Your task to perform on an android device: delete location history Image 0: 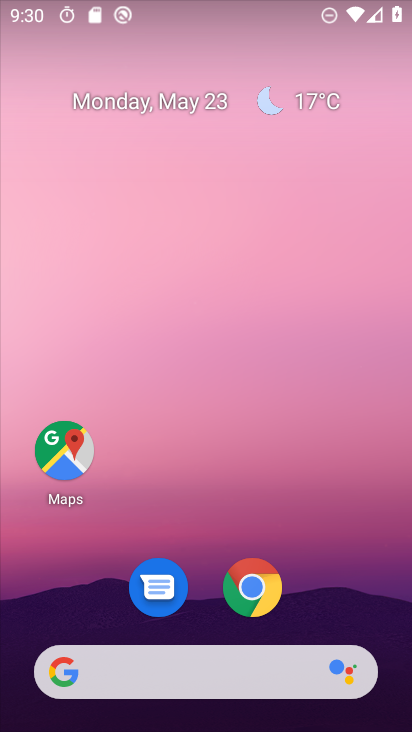
Step 0: click (52, 458)
Your task to perform on an android device: delete location history Image 1: 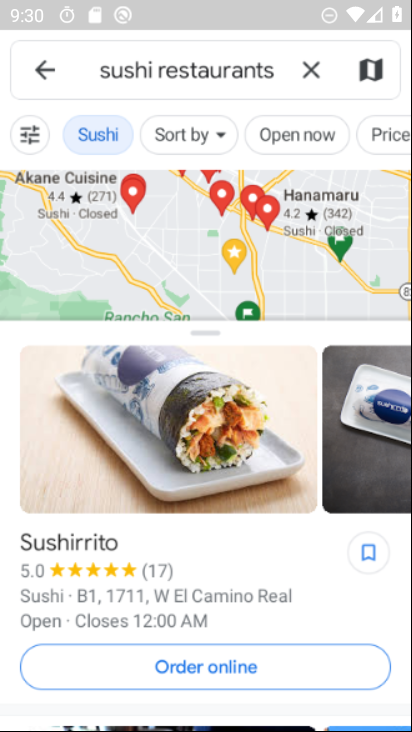
Step 1: click (29, 61)
Your task to perform on an android device: delete location history Image 2: 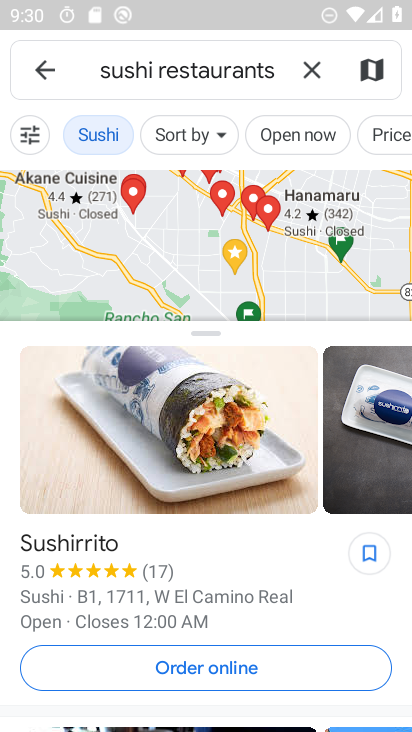
Step 2: click (36, 63)
Your task to perform on an android device: delete location history Image 3: 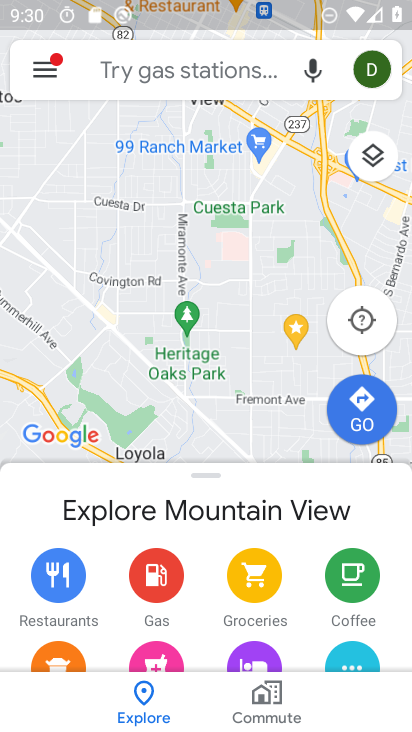
Step 3: click (51, 70)
Your task to perform on an android device: delete location history Image 4: 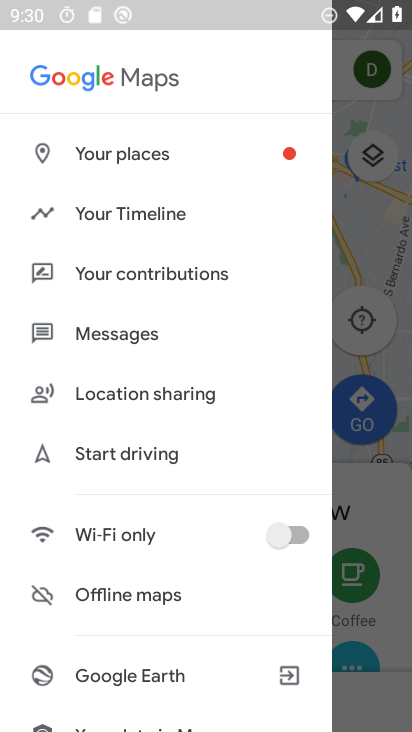
Step 4: click (145, 218)
Your task to perform on an android device: delete location history Image 5: 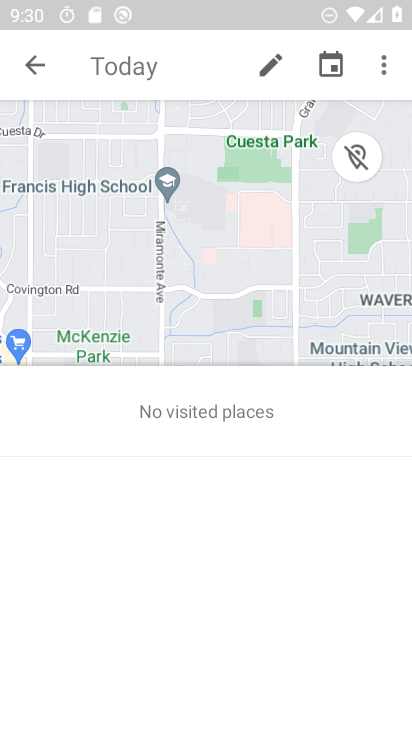
Step 5: click (388, 51)
Your task to perform on an android device: delete location history Image 6: 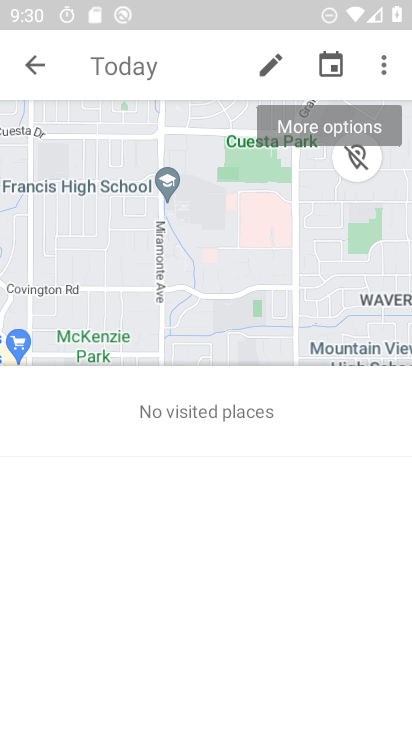
Step 6: click (384, 58)
Your task to perform on an android device: delete location history Image 7: 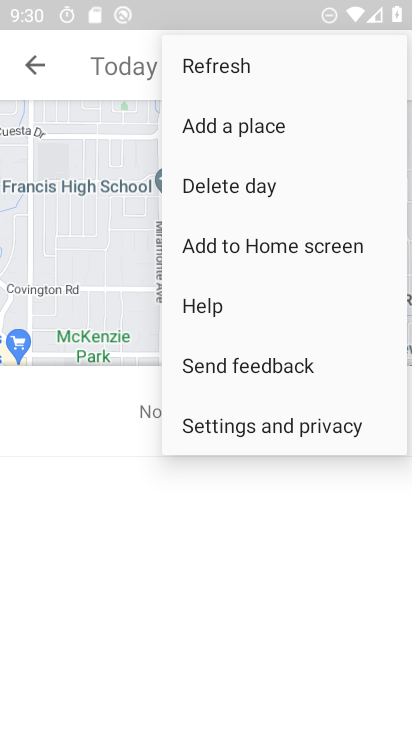
Step 7: click (226, 429)
Your task to perform on an android device: delete location history Image 8: 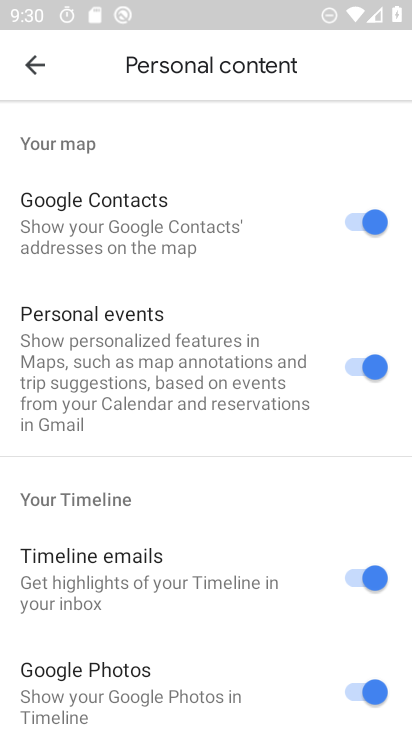
Step 8: drag from (118, 613) to (198, 143)
Your task to perform on an android device: delete location history Image 9: 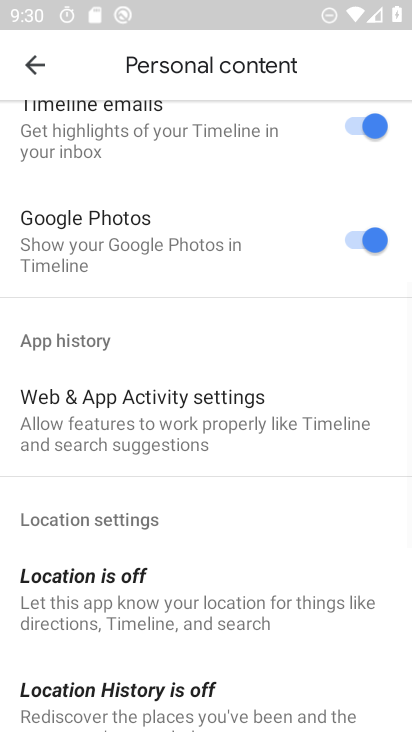
Step 9: drag from (169, 633) to (252, 270)
Your task to perform on an android device: delete location history Image 10: 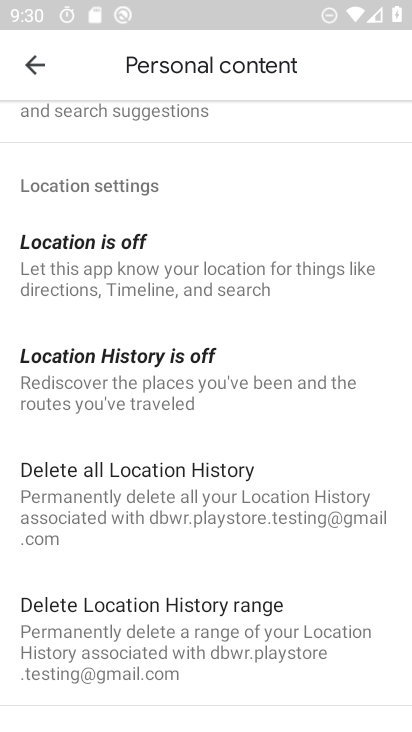
Step 10: click (156, 479)
Your task to perform on an android device: delete location history Image 11: 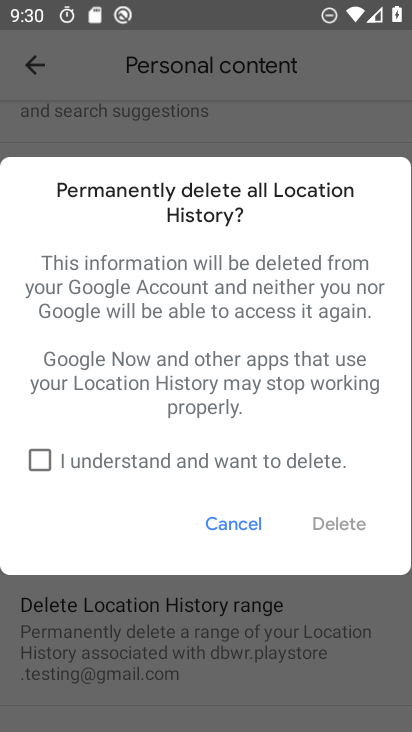
Step 11: click (36, 441)
Your task to perform on an android device: delete location history Image 12: 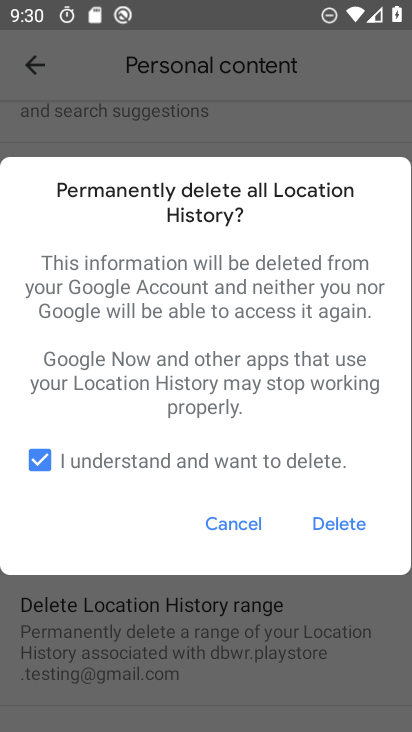
Step 12: click (346, 523)
Your task to perform on an android device: delete location history Image 13: 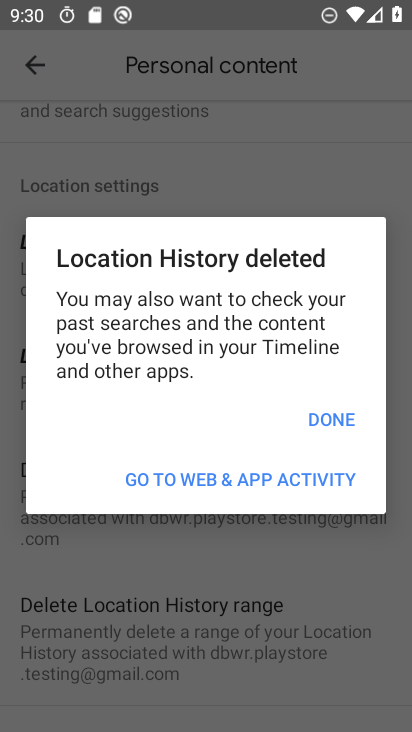
Step 13: click (352, 401)
Your task to perform on an android device: delete location history Image 14: 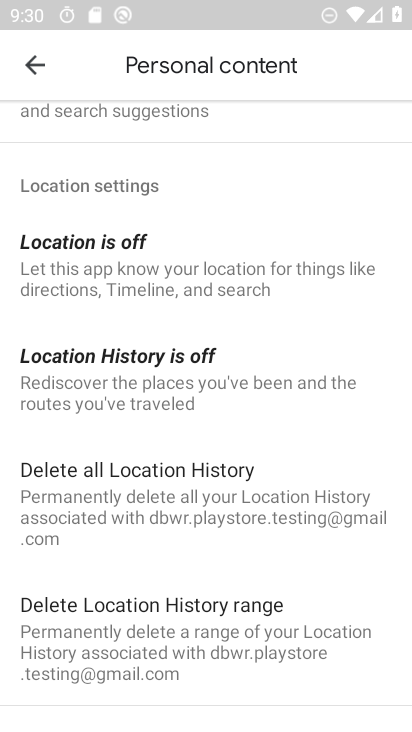
Step 14: task complete